Your task to perform on an android device: turn off priority inbox in the gmail app Image 0: 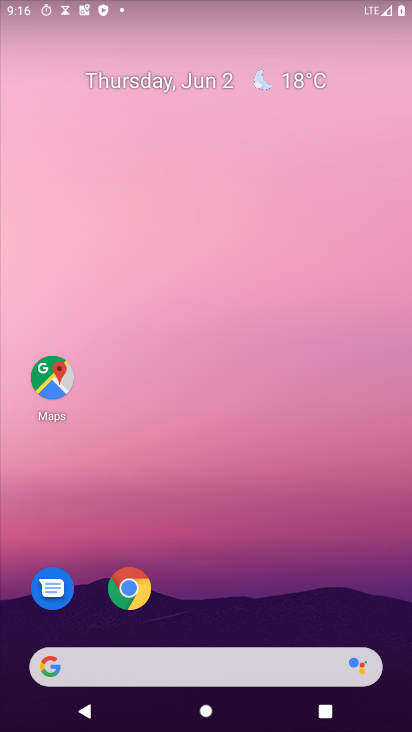
Step 0: drag from (243, 615) to (298, 203)
Your task to perform on an android device: turn off priority inbox in the gmail app Image 1: 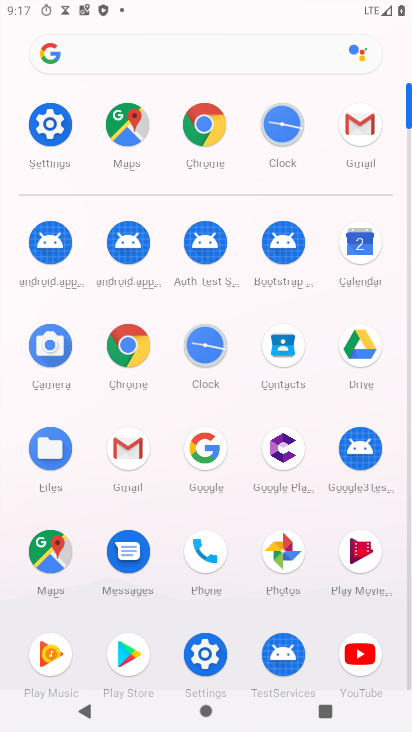
Step 1: click (356, 126)
Your task to perform on an android device: turn off priority inbox in the gmail app Image 2: 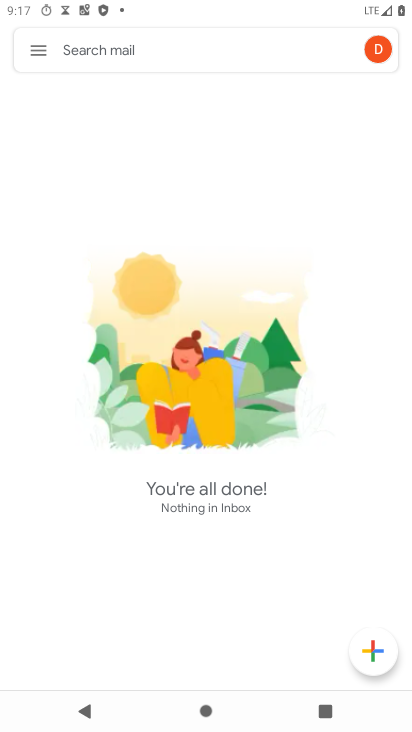
Step 2: click (43, 47)
Your task to perform on an android device: turn off priority inbox in the gmail app Image 3: 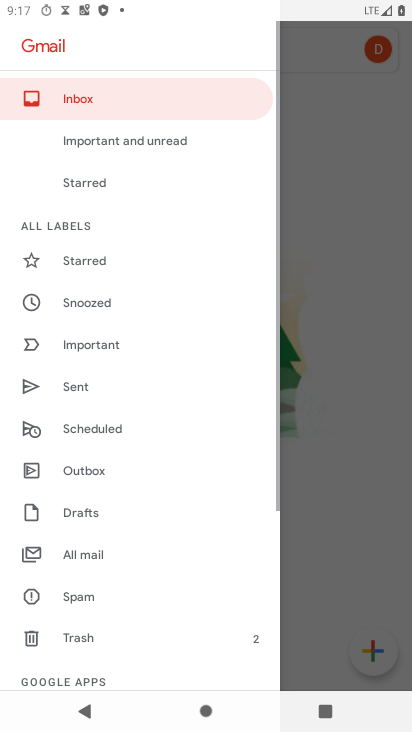
Step 3: drag from (138, 625) to (206, 0)
Your task to perform on an android device: turn off priority inbox in the gmail app Image 4: 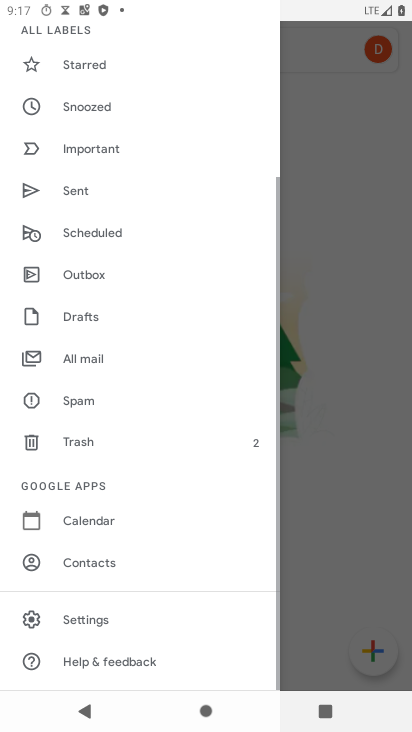
Step 4: click (94, 625)
Your task to perform on an android device: turn off priority inbox in the gmail app Image 5: 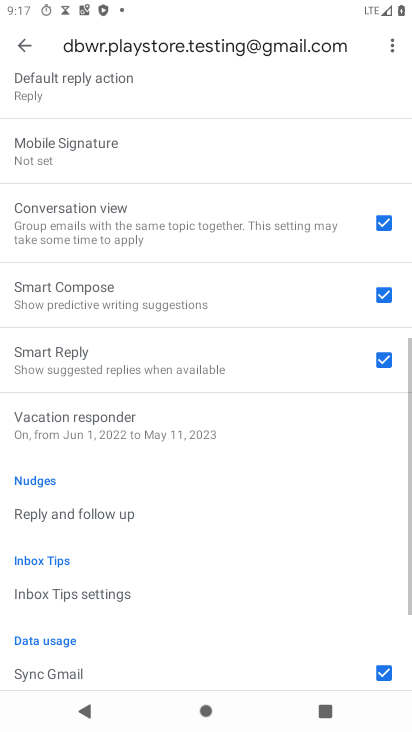
Step 5: drag from (116, 622) to (199, 53)
Your task to perform on an android device: turn off priority inbox in the gmail app Image 6: 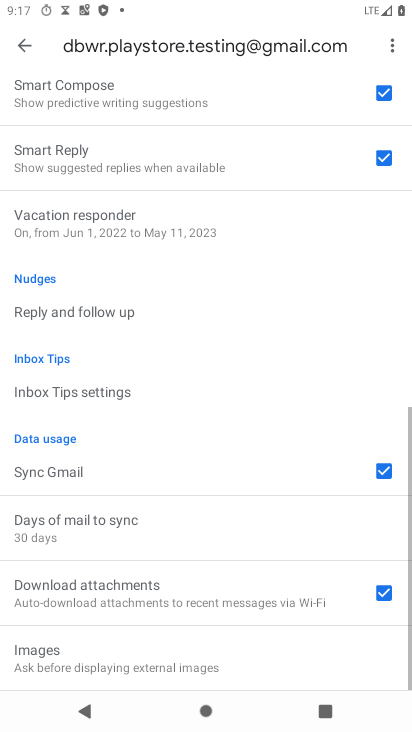
Step 6: drag from (161, 604) to (225, 69)
Your task to perform on an android device: turn off priority inbox in the gmail app Image 7: 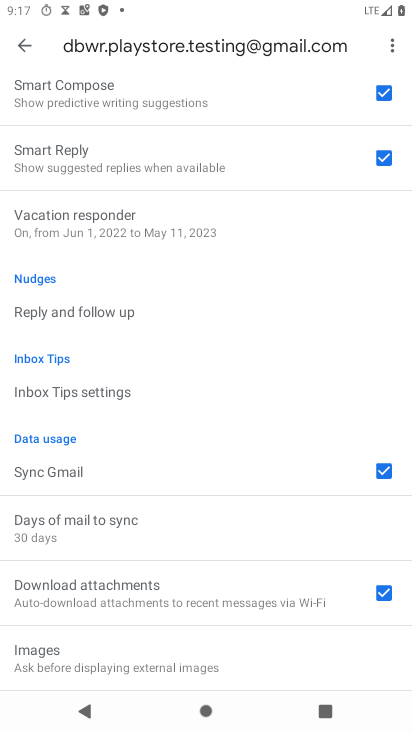
Step 7: drag from (248, 191) to (212, 595)
Your task to perform on an android device: turn off priority inbox in the gmail app Image 8: 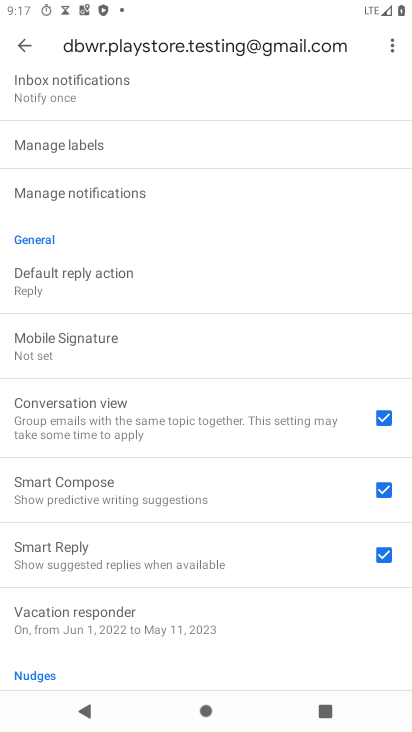
Step 8: drag from (140, 174) to (90, 672)
Your task to perform on an android device: turn off priority inbox in the gmail app Image 9: 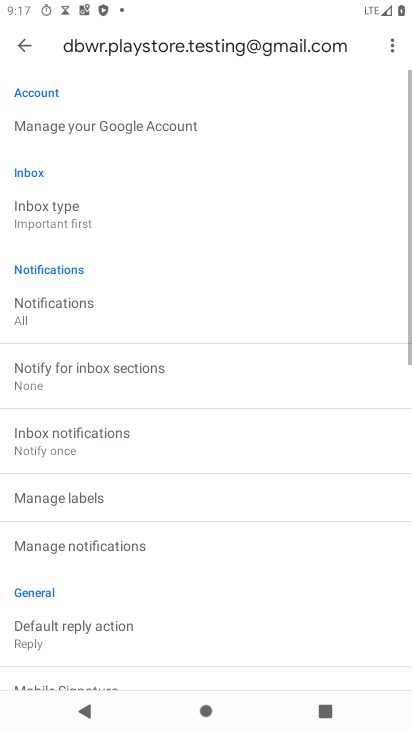
Step 9: click (34, 215)
Your task to perform on an android device: turn off priority inbox in the gmail app Image 10: 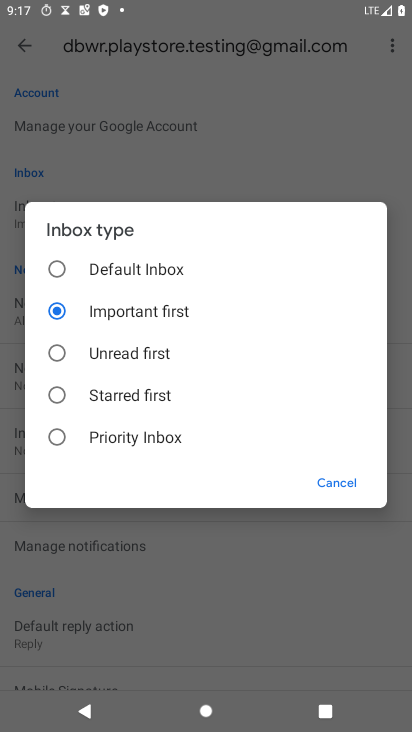
Step 10: task complete